Your task to perform on an android device: visit the assistant section in the google photos Image 0: 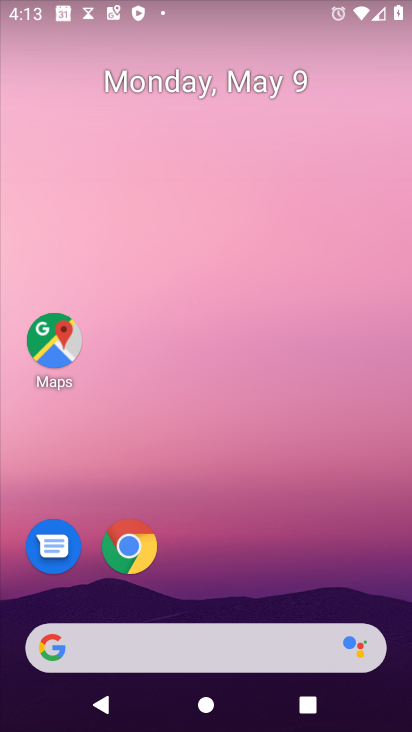
Step 0: drag from (292, 566) to (14, 1)
Your task to perform on an android device: visit the assistant section in the google photos Image 1: 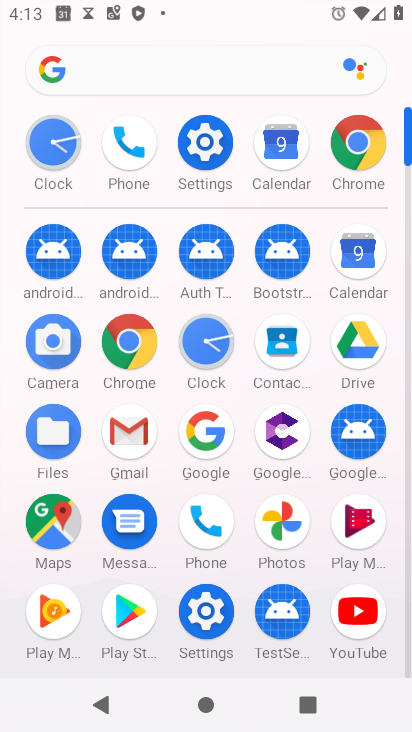
Step 1: click (283, 525)
Your task to perform on an android device: visit the assistant section in the google photos Image 2: 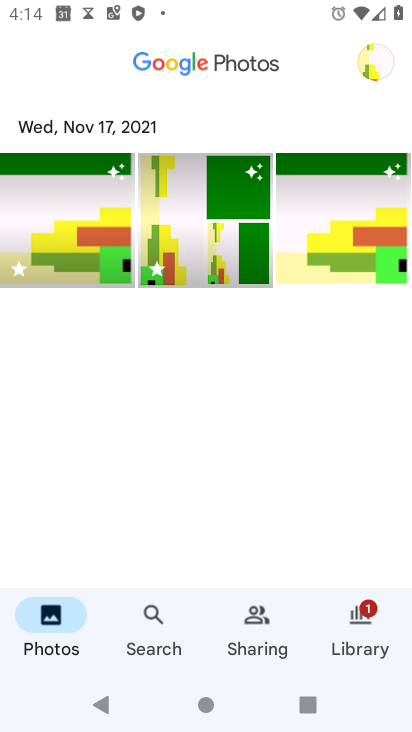
Step 2: click (394, 65)
Your task to perform on an android device: visit the assistant section in the google photos Image 3: 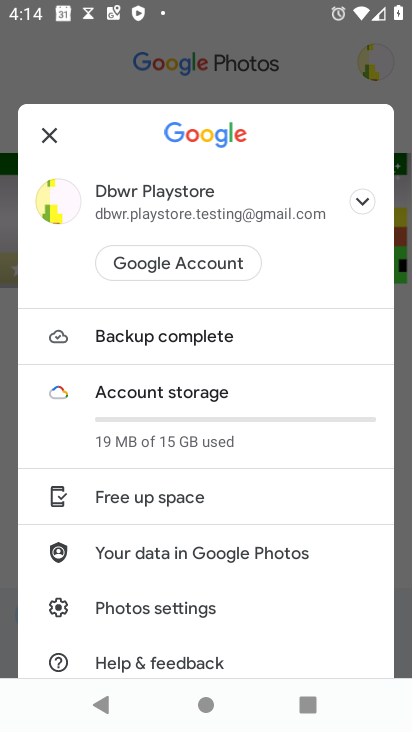
Step 3: task complete